Your task to perform on an android device: open chrome privacy settings Image 0: 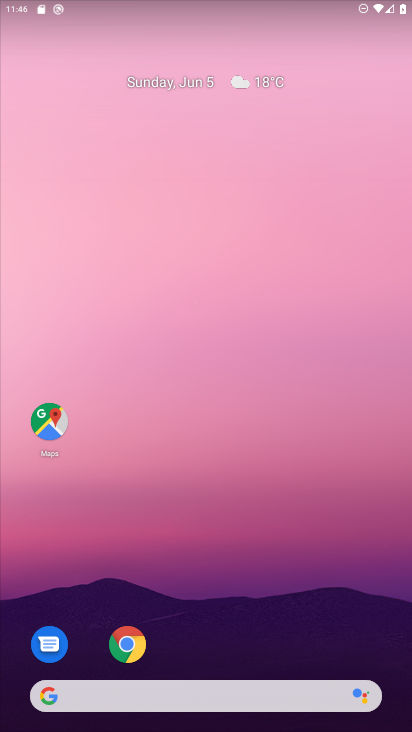
Step 0: drag from (270, 643) to (314, 197)
Your task to perform on an android device: open chrome privacy settings Image 1: 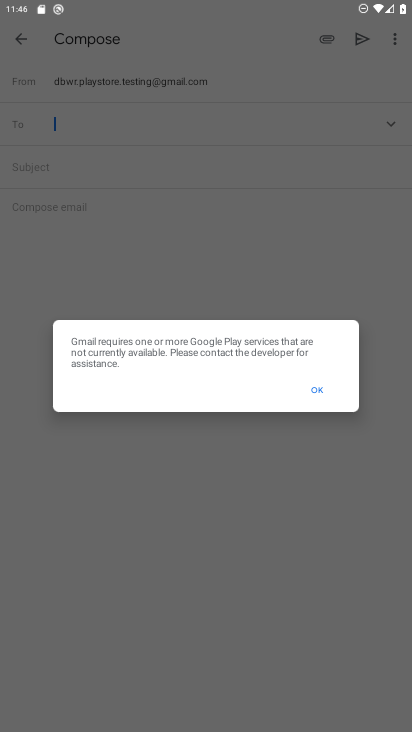
Step 1: press home button
Your task to perform on an android device: open chrome privacy settings Image 2: 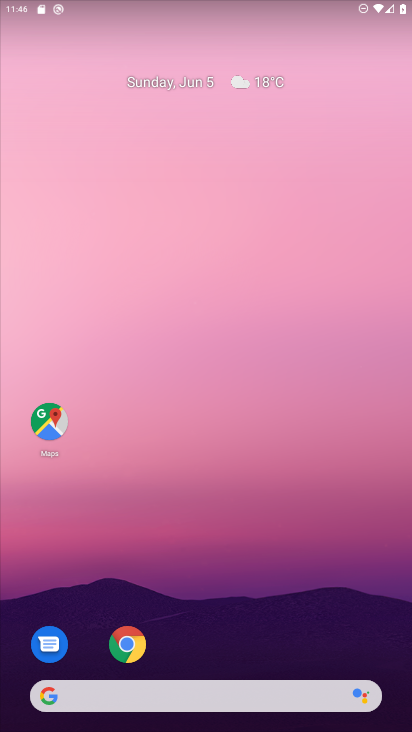
Step 2: drag from (239, 712) to (230, 238)
Your task to perform on an android device: open chrome privacy settings Image 3: 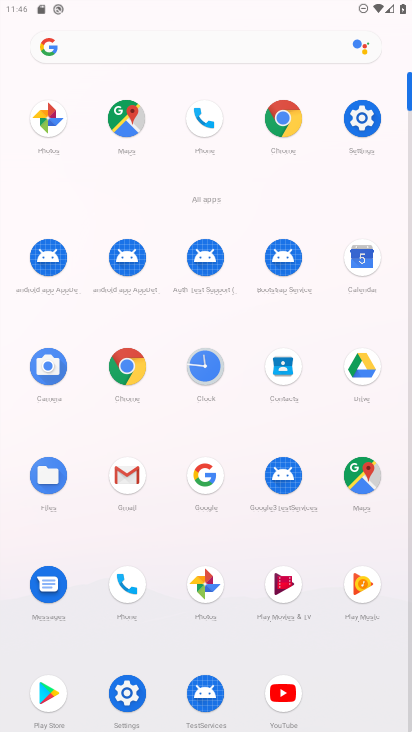
Step 3: click (290, 120)
Your task to perform on an android device: open chrome privacy settings Image 4: 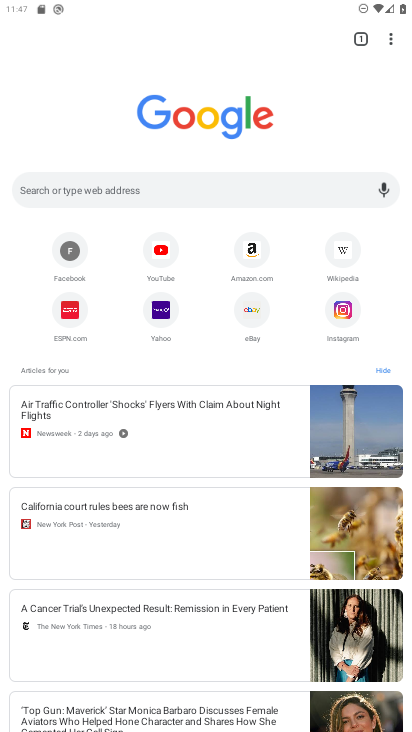
Step 4: click (380, 39)
Your task to perform on an android device: open chrome privacy settings Image 5: 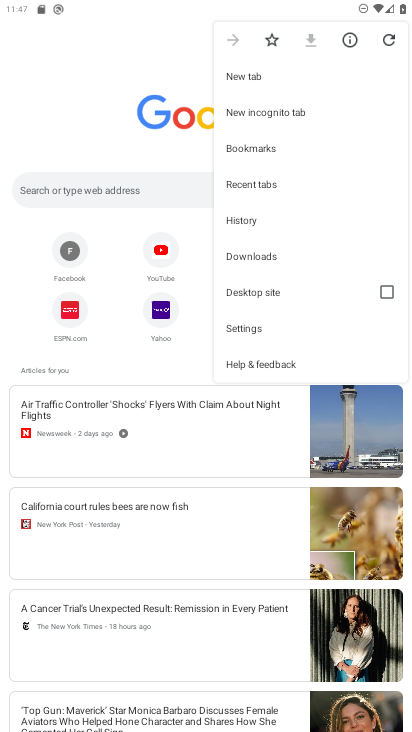
Step 5: click (235, 322)
Your task to perform on an android device: open chrome privacy settings Image 6: 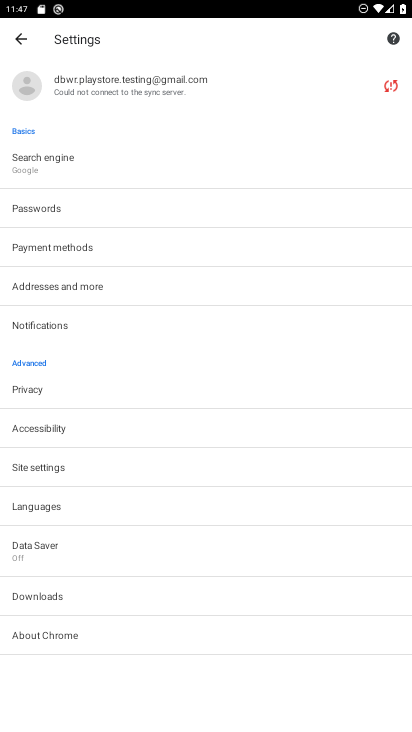
Step 6: click (43, 387)
Your task to perform on an android device: open chrome privacy settings Image 7: 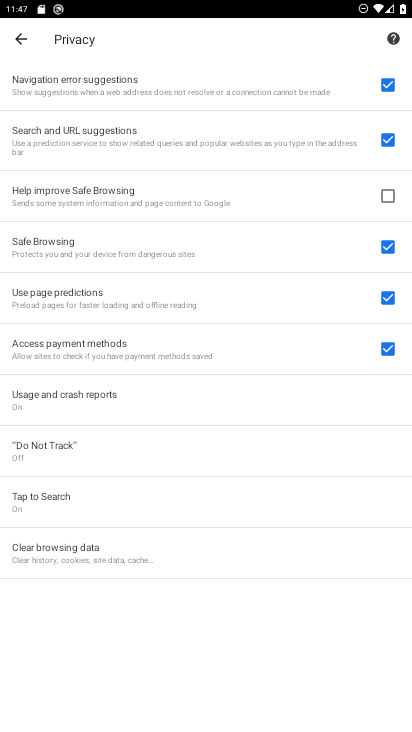
Step 7: task complete